Your task to perform on an android device: Open Yahoo.com Image 0: 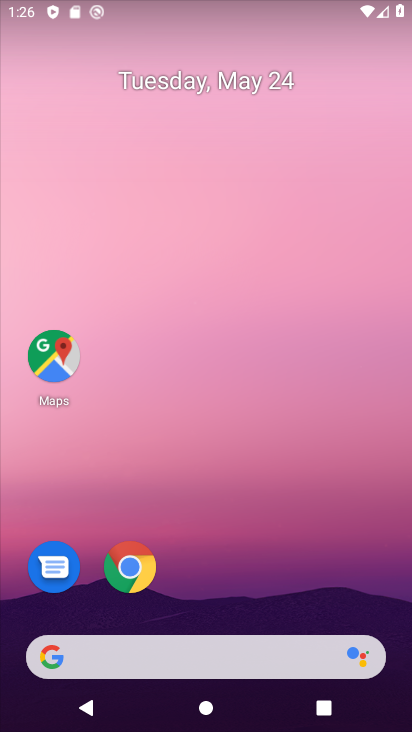
Step 0: click (146, 573)
Your task to perform on an android device: Open Yahoo.com Image 1: 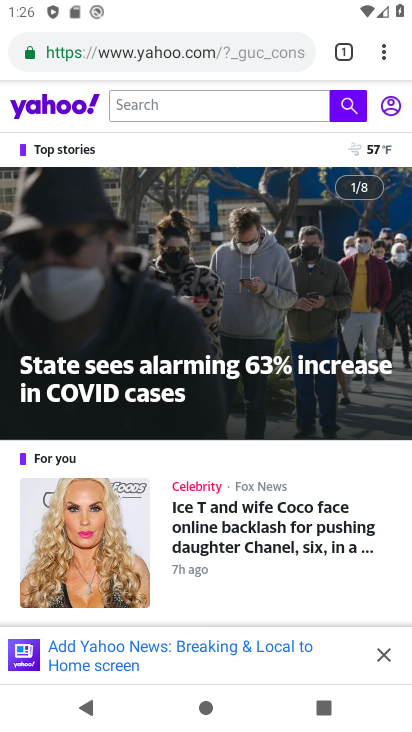
Step 1: task complete